Your task to perform on an android device: Open Youtube and go to the subscriptions tab Image 0: 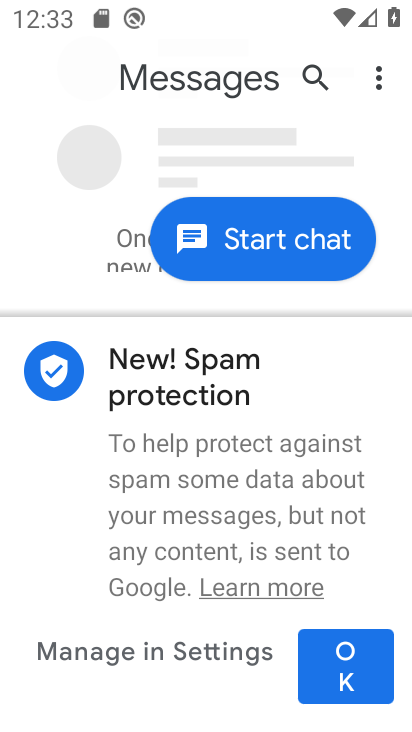
Step 0: press home button
Your task to perform on an android device: Open Youtube and go to the subscriptions tab Image 1: 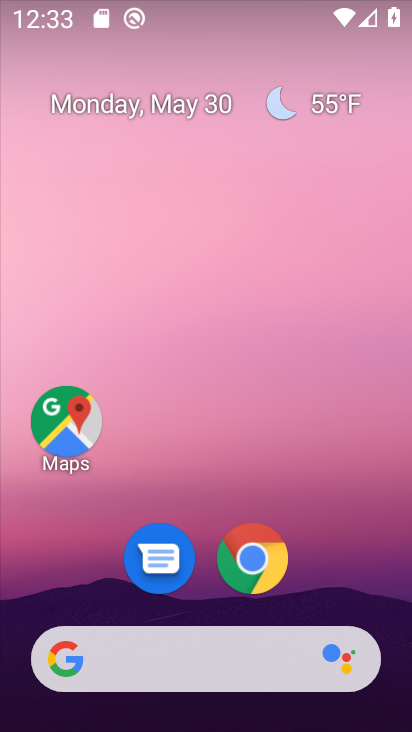
Step 1: drag from (357, 429) to (375, 0)
Your task to perform on an android device: Open Youtube and go to the subscriptions tab Image 2: 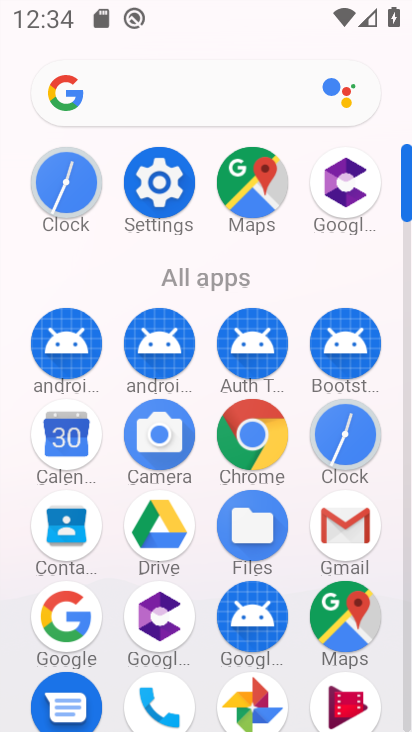
Step 2: drag from (389, 594) to (382, 230)
Your task to perform on an android device: Open Youtube and go to the subscriptions tab Image 3: 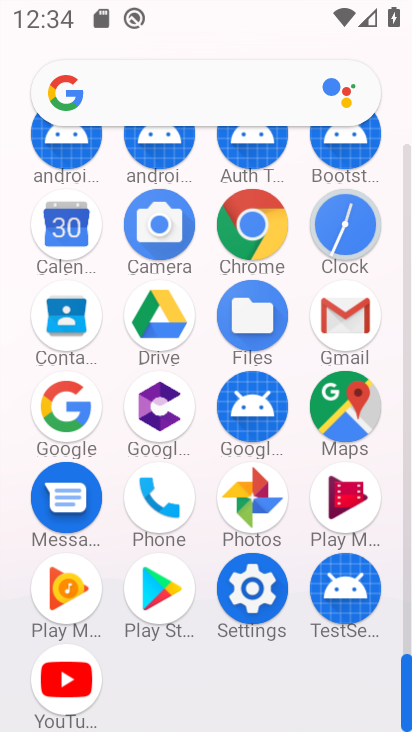
Step 3: click (54, 691)
Your task to perform on an android device: Open Youtube and go to the subscriptions tab Image 4: 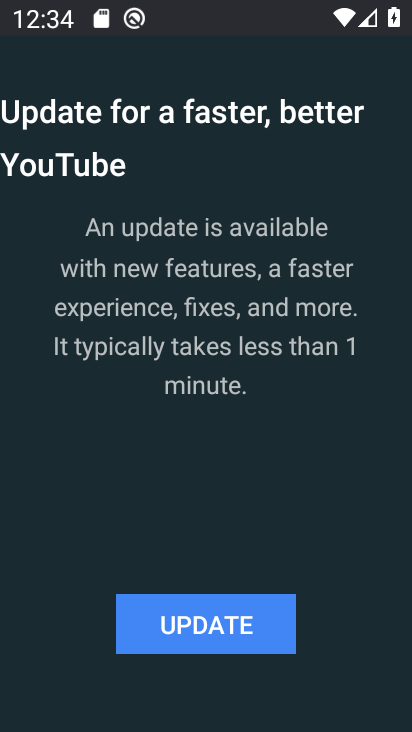
Step 4: click (168, 632)
Your task to perform on an android device: Open Youtube and go to the subscriptions tab Image 5: 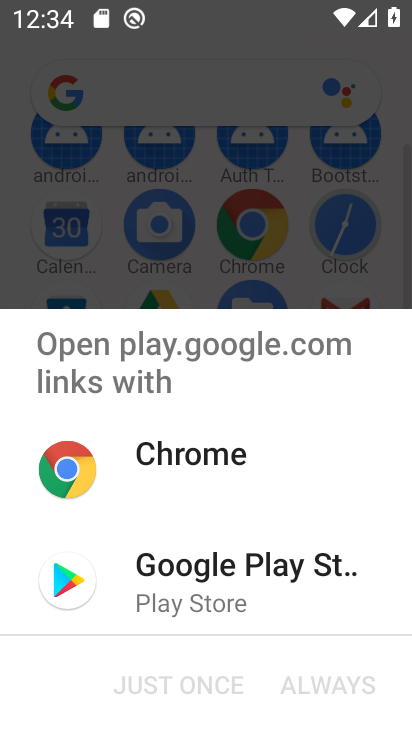
Step 5: click (166, 565)
Your task to perform on an android device: Open Youtube and go to the subscriptions tab Image 6: 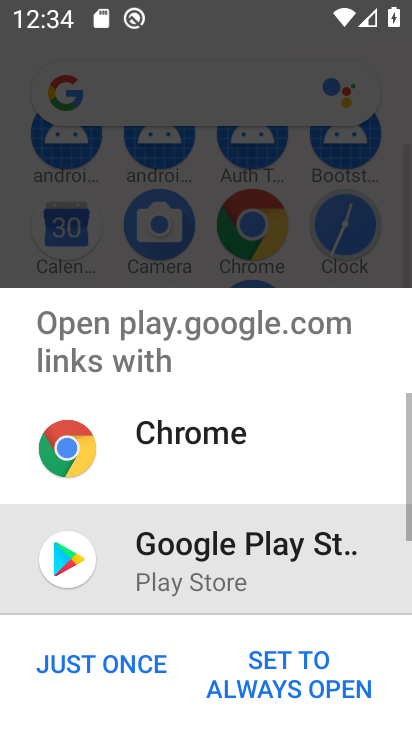
Step 6: click (110, 652)
Your task to perform on an android device: Open Youtube and go to the subscriptions tab Image 7: 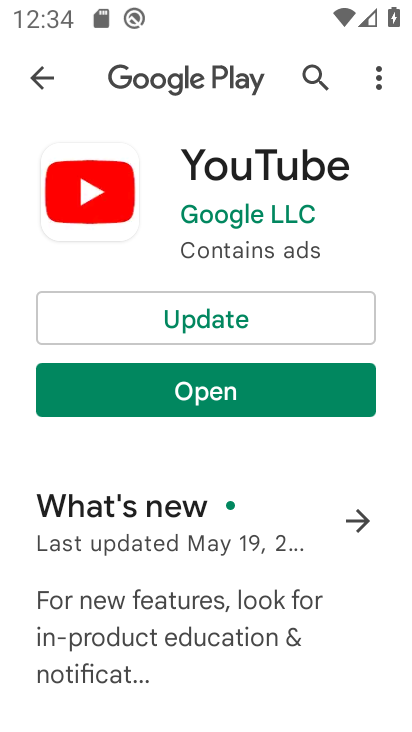
Step 7: click (196, 325)
Your task to perform on an android device: Open Youtube and go to the subscriptions tab Image 8: 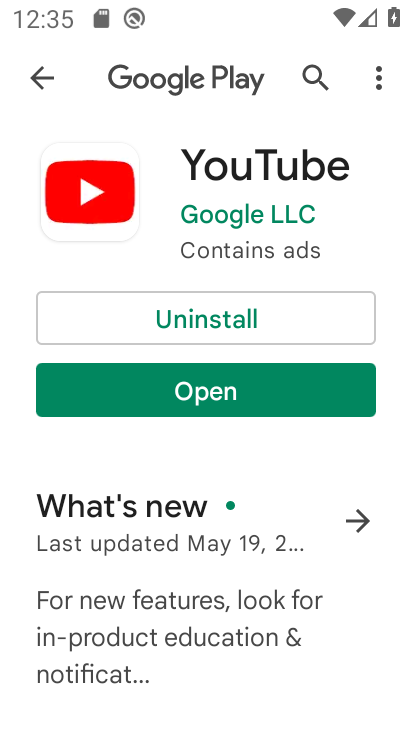
Step 8: click (202, 388)
Your task to perform on an android device: Open Youtube and go to the subscriptions tab Image 9: 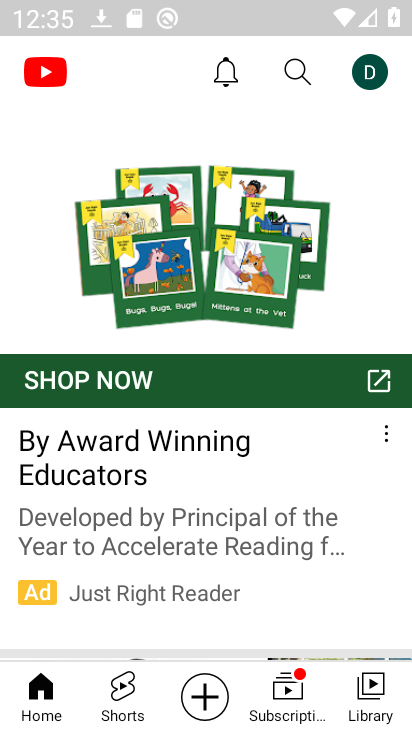
Step 9: click (260, 702)
Your task to perform on an android device: Open Youtube and go to the subscriptions tab Image 10: 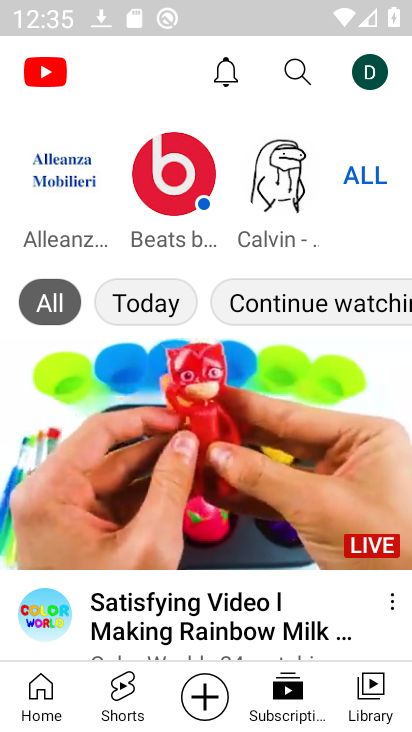
Step 10: task complete